Your task to perform on an android device: Is it going to rain today? Image 0: 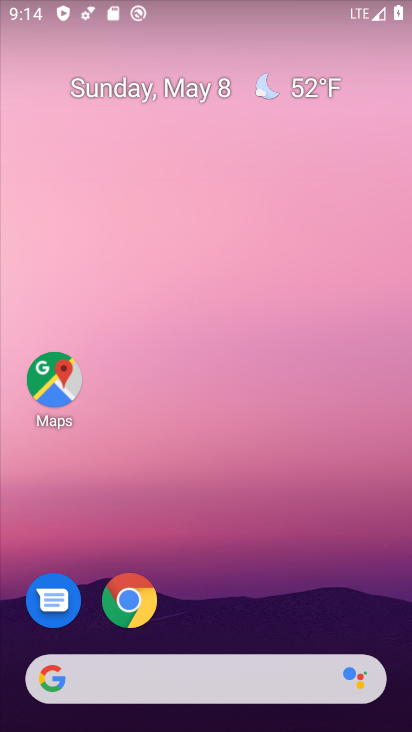
Step 0: click (309, 84)
Your task to perform on an android device: Is it going to rain today? Image 1: 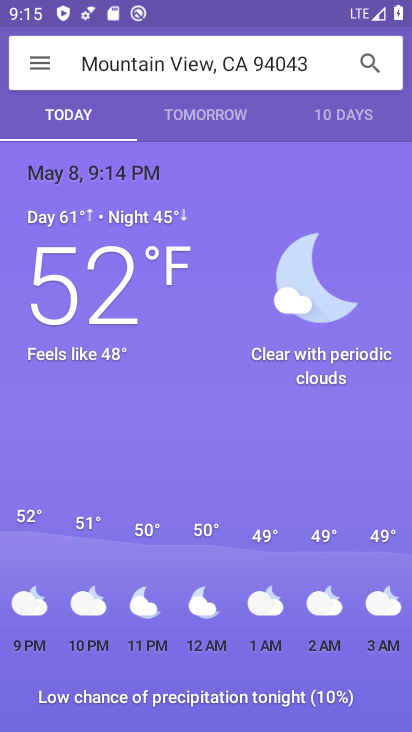
Step 1: task complete